Your task to perform on an android device: empty trash in google photos Image 0: 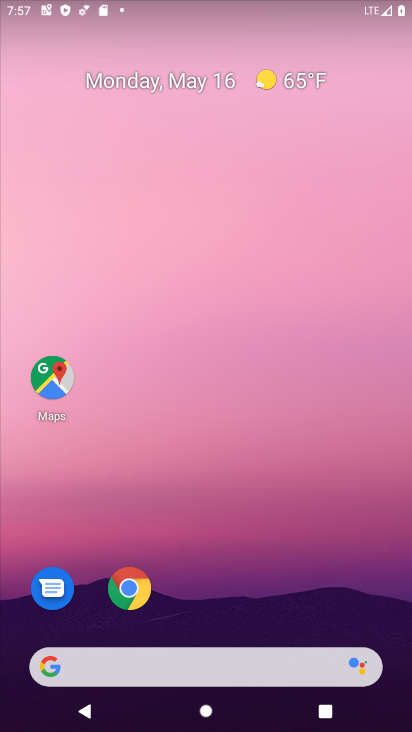
Step 0: drag from (234, 525) to (217, 73)
Your task to perform on an android device: empty trash in google photos Image 1: 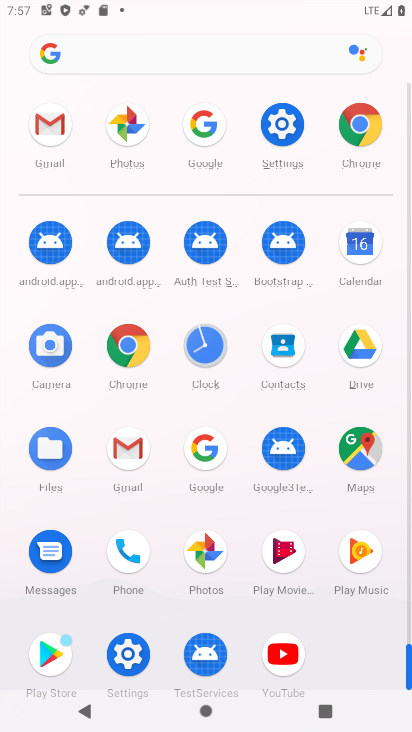
Step 1: drag from (18, 505) to (19, 272)
Your task to perform on an android device: empty trash in google photos Image 2: 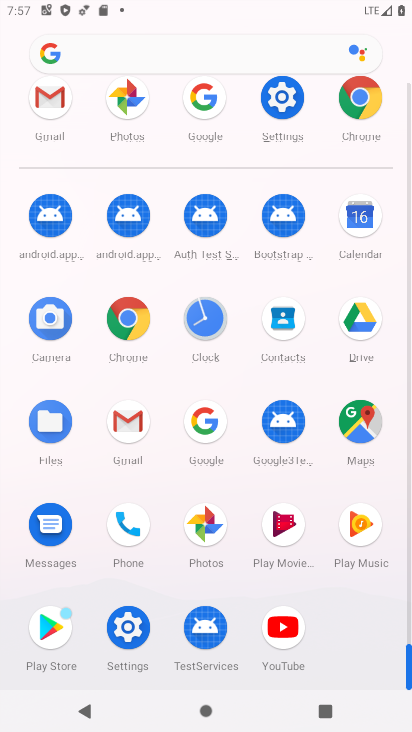
Step 2: click (204, 525)
Your task to perform on an android device: empty trash in google photos Image 3: 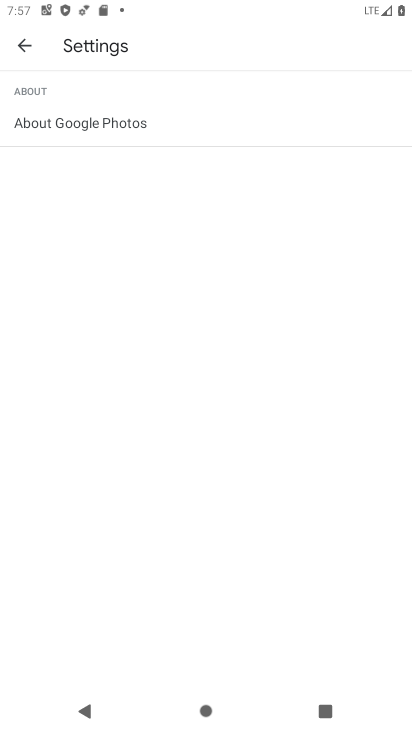
Step 3: click (29, 46)
Your task to perform on an android device: empty trash in google photos Image 4: 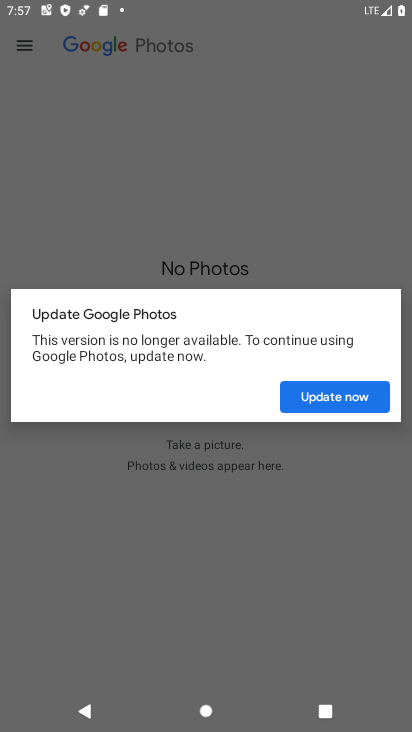
Step 4: click (360, 398)
Your task to perform on an android device: empty trash in google photos Image 5: 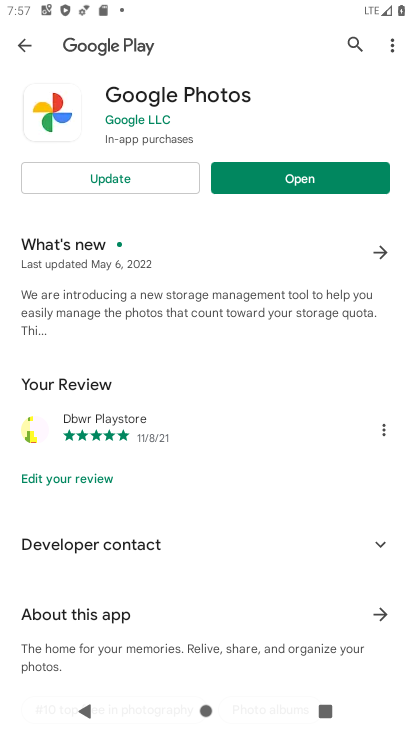
Step 5: click (136, 168)
Your task to perform on an android device: empty trash in google photos Image 6: 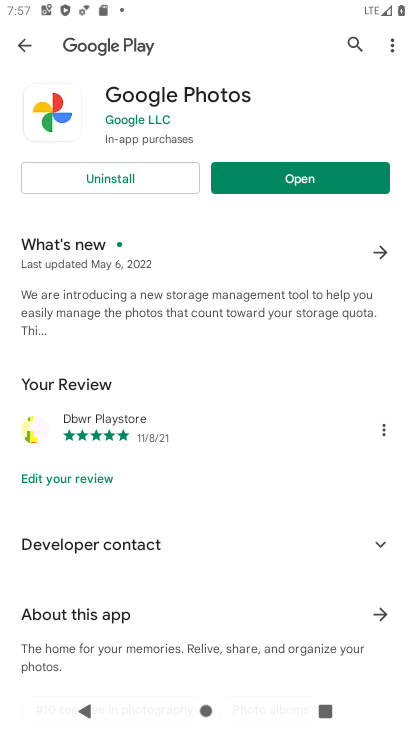
Step 6: click (274, 177)
Your task to perform on an android device: empty trash in google photos Image 7: 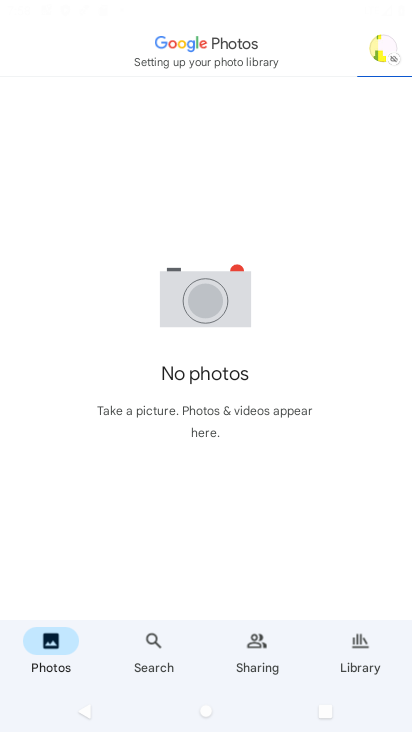
Step 7: click (356, 649)
Your task to perform on an android device: empty trash in google photos Image 8: 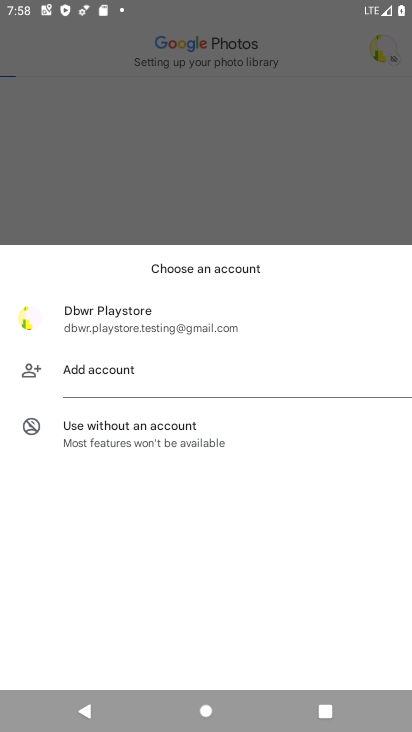
Step 8: press back button
Your task to perform on an android device: empty trash in google photos Image 9: 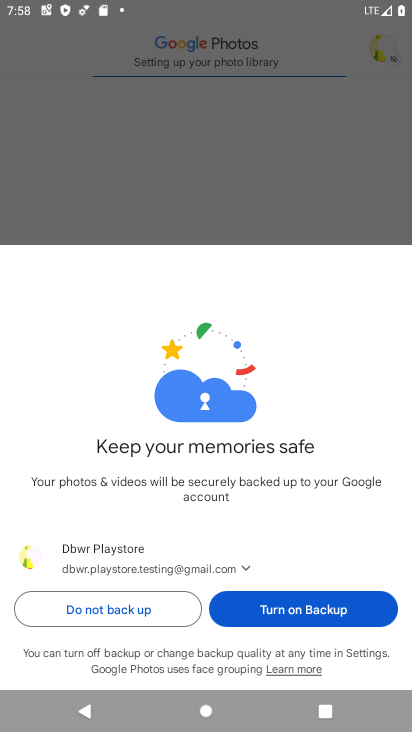
Step 9: click (303, 606)
Your task to perform on an android device: empty trash in google photos Image 10: 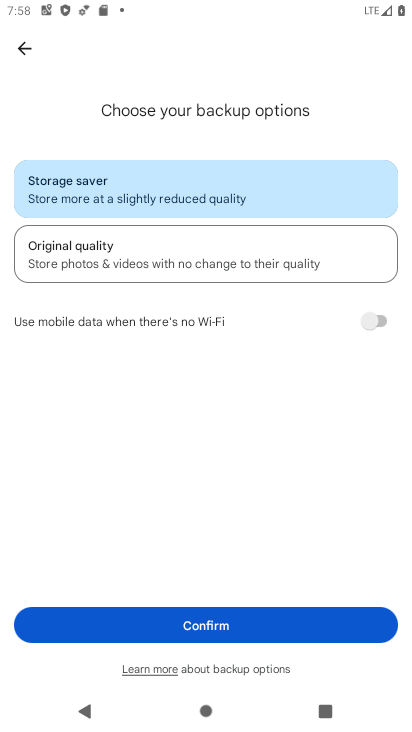
Step 10: click (251, 630)
Your task to perform on an android device: empty trash in google photos Image 11: 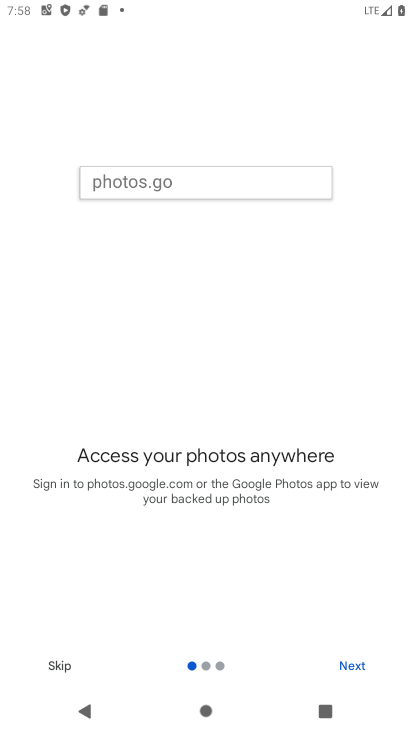
Step 11: click (354, 662)
Your task to perform on an android device: empty trash in google photos Image 12: 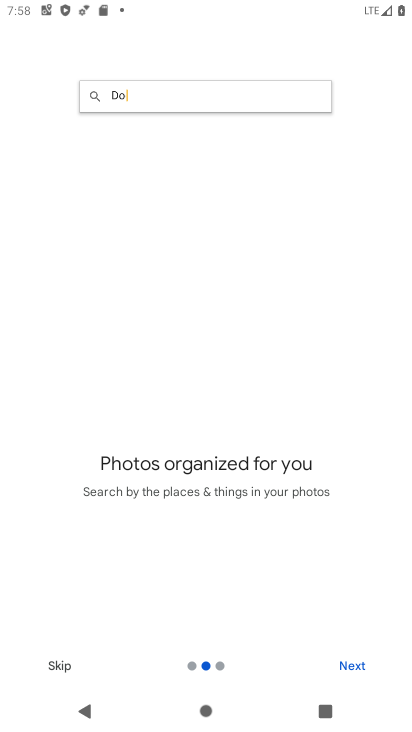
Step 12: click (354, 662)
Your task to perform on an android device: empty trash in google photos Image 13: 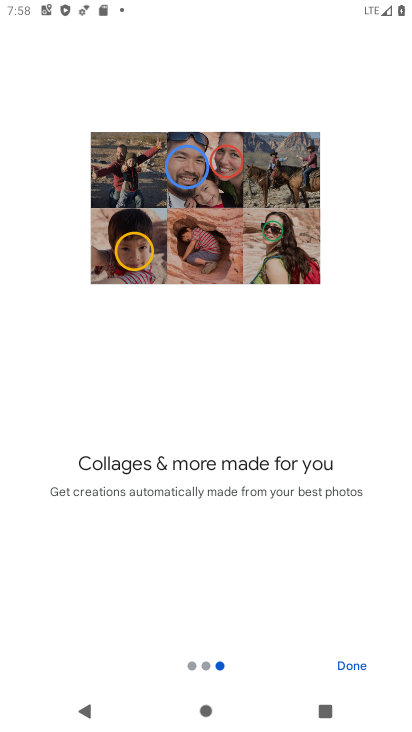
Step 13: click (354, 662)
Your task to perform on an android device: empty trash in google photos Image 14: 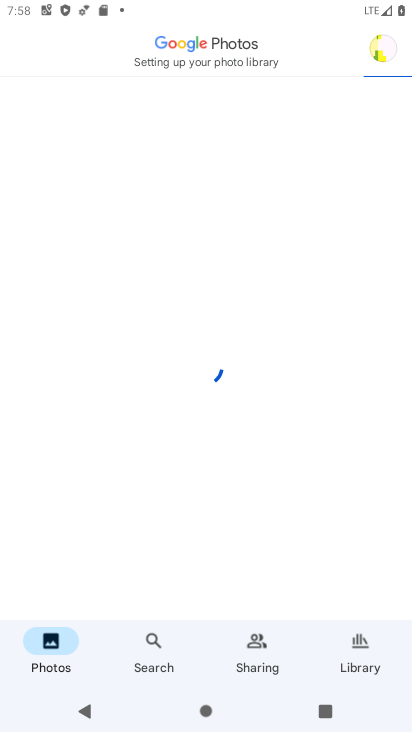
Step 14: click (353, 657)
Your task to perform on an android device: empty trash in google photos Image 15: 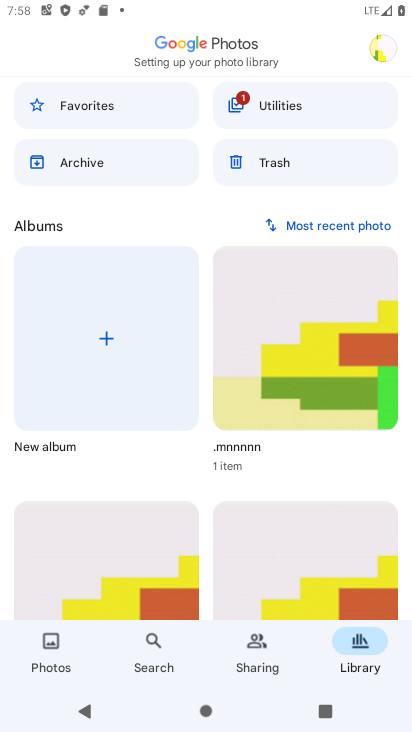
Step 15: click (305, 155)
Your task to perform on an android device: empty trash in google photos Image 16: 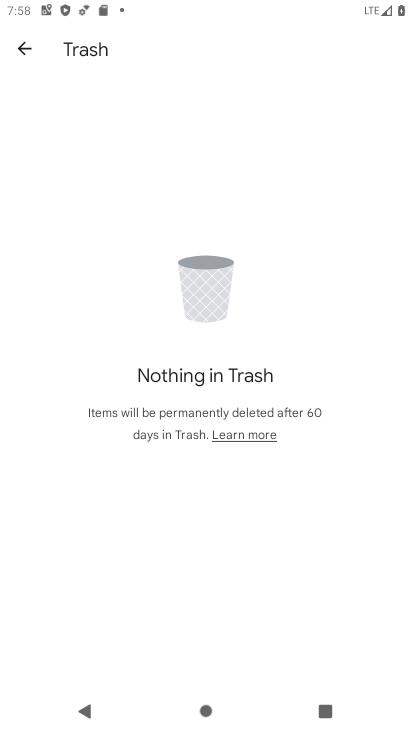
Step 16: task complete